Your task to perform on an android device: check google app version Image 0: 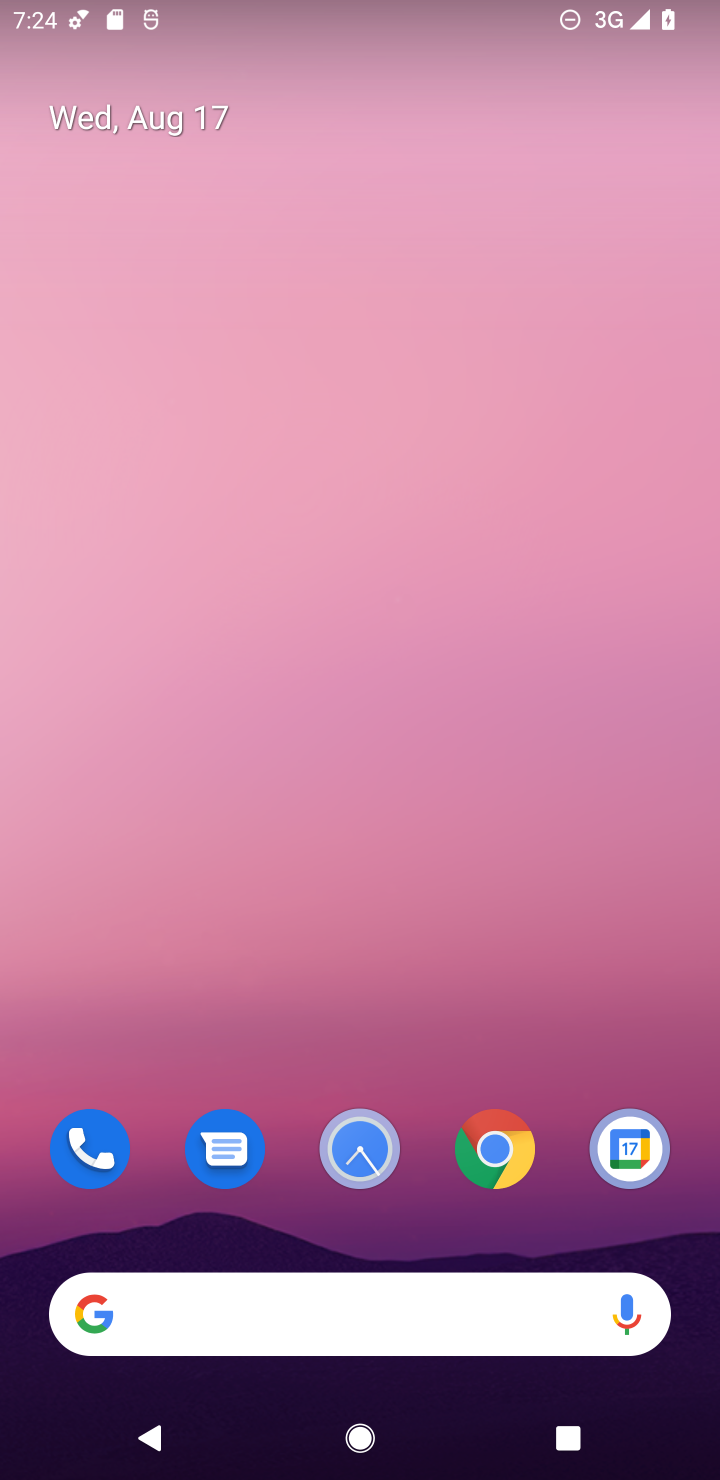
Step 0: drag from (420, 1217) to (337, 68)
Your task to perform on an android device: check google app version Image 1: 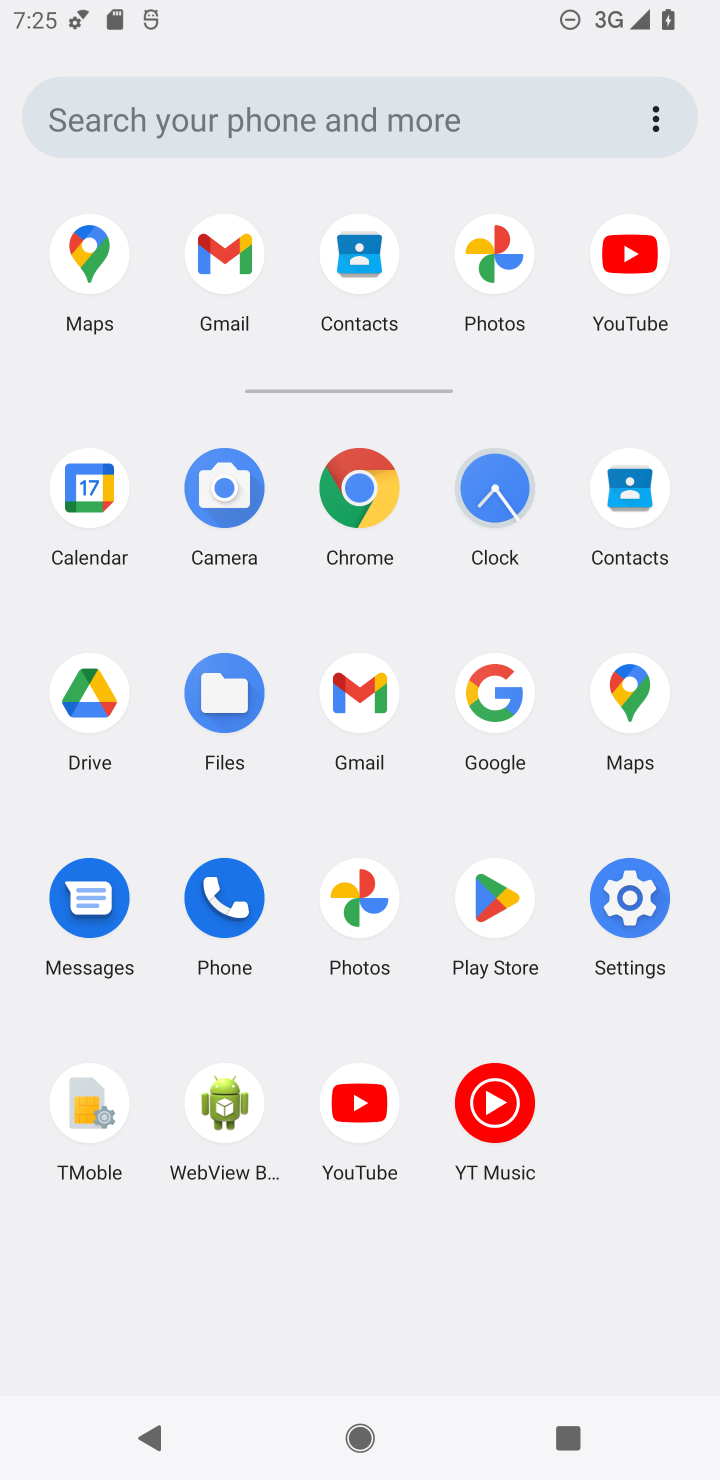
Step 1: click (498, 692)
Your task to perform on an android device: check google app version Image 2: 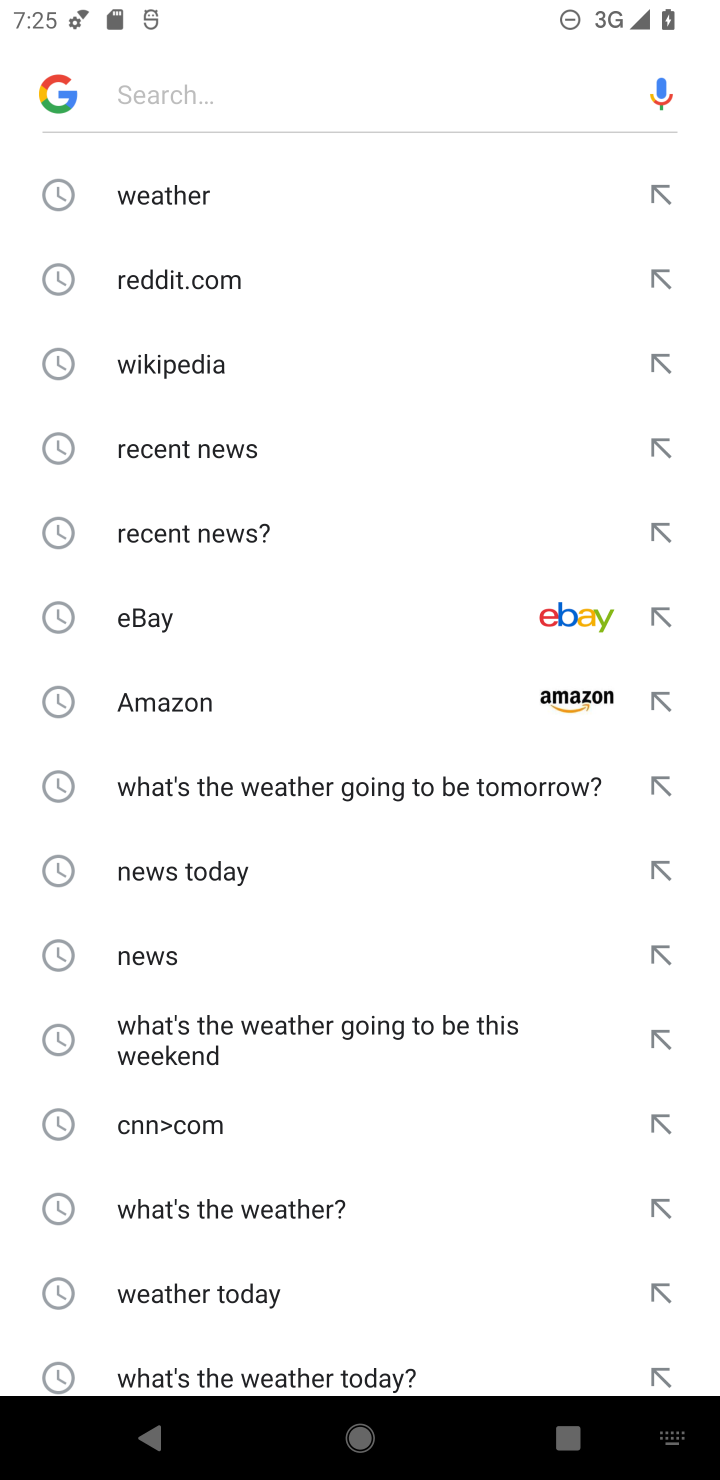
Step 2: click (44, 88)
Your task to perform on an android device: check google app version Image 3: 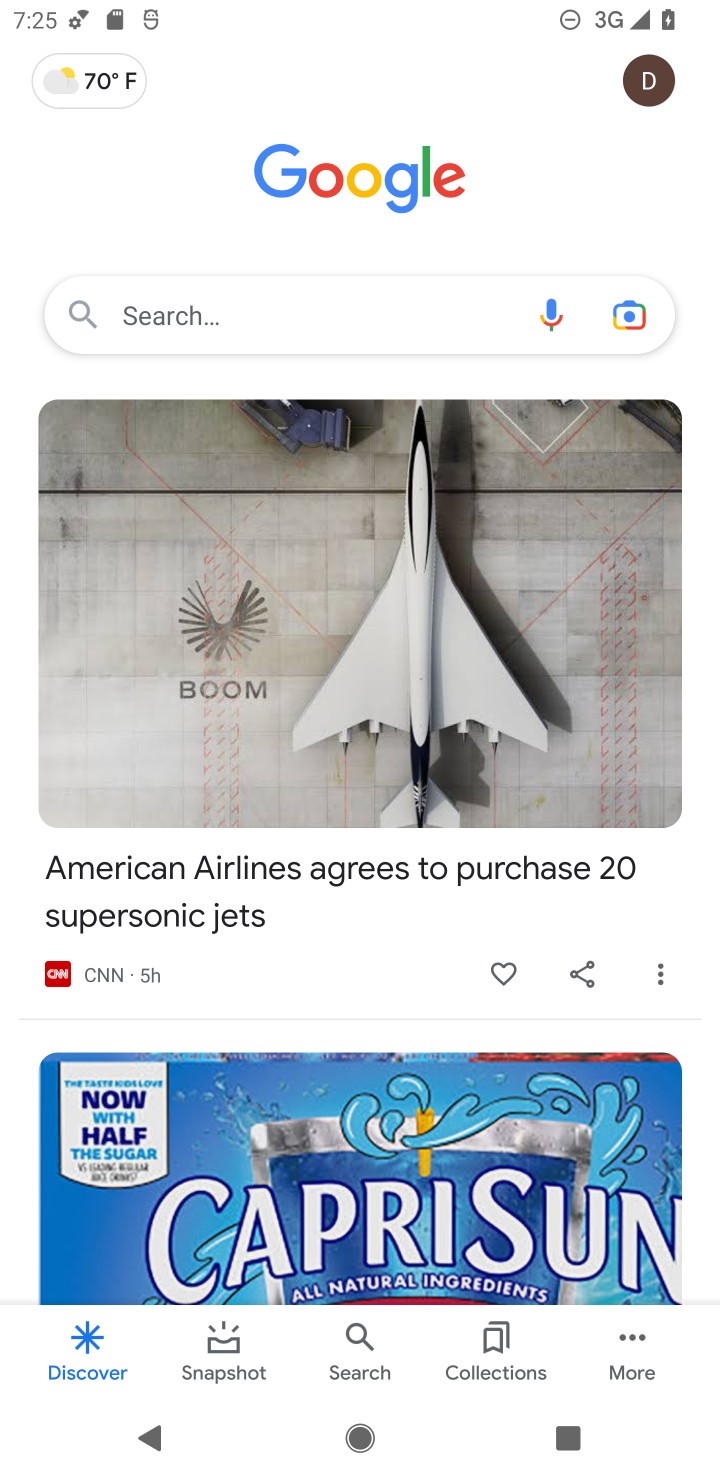
Step 3: click (635, 1339)
Your task to perform on an android device: check google app version Image 4: 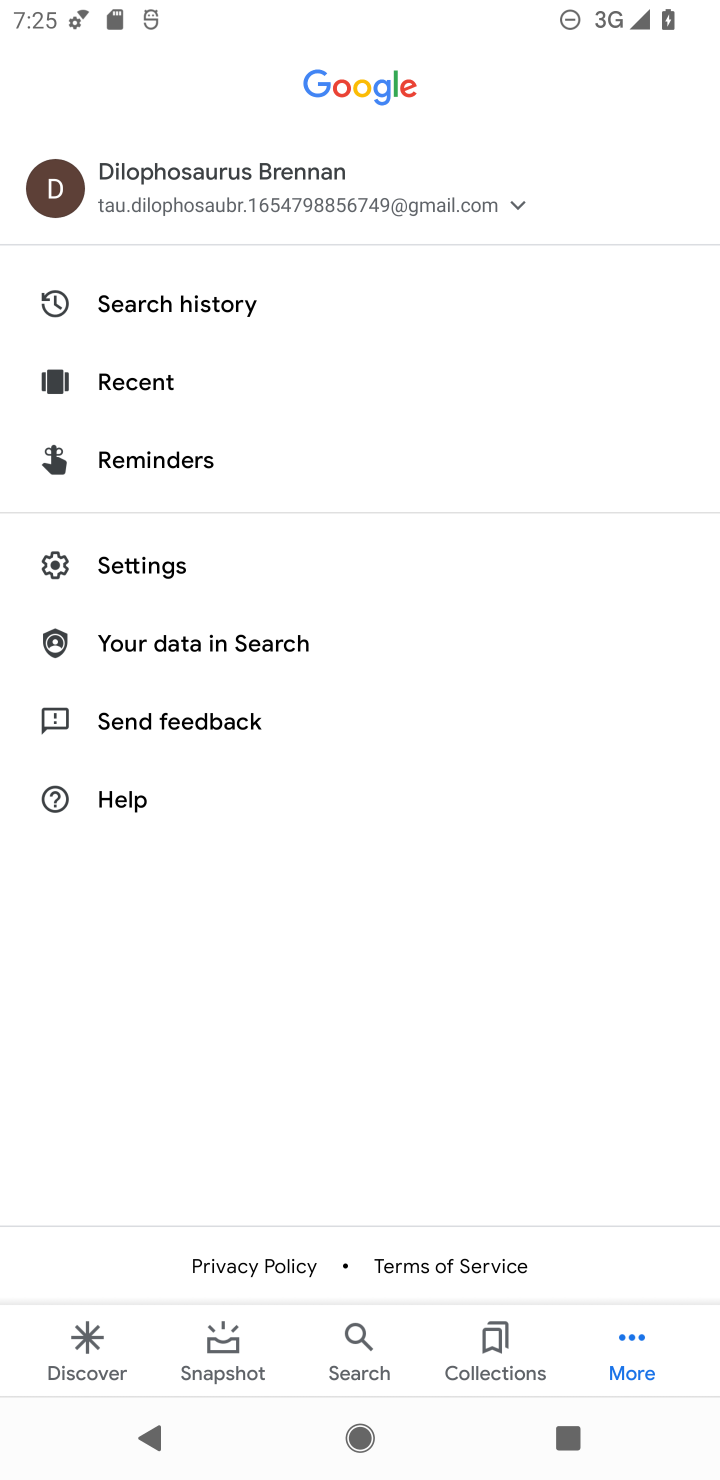
Step 4: click (161, 546)
Your task to perform on an android device: check google app version Image 5: 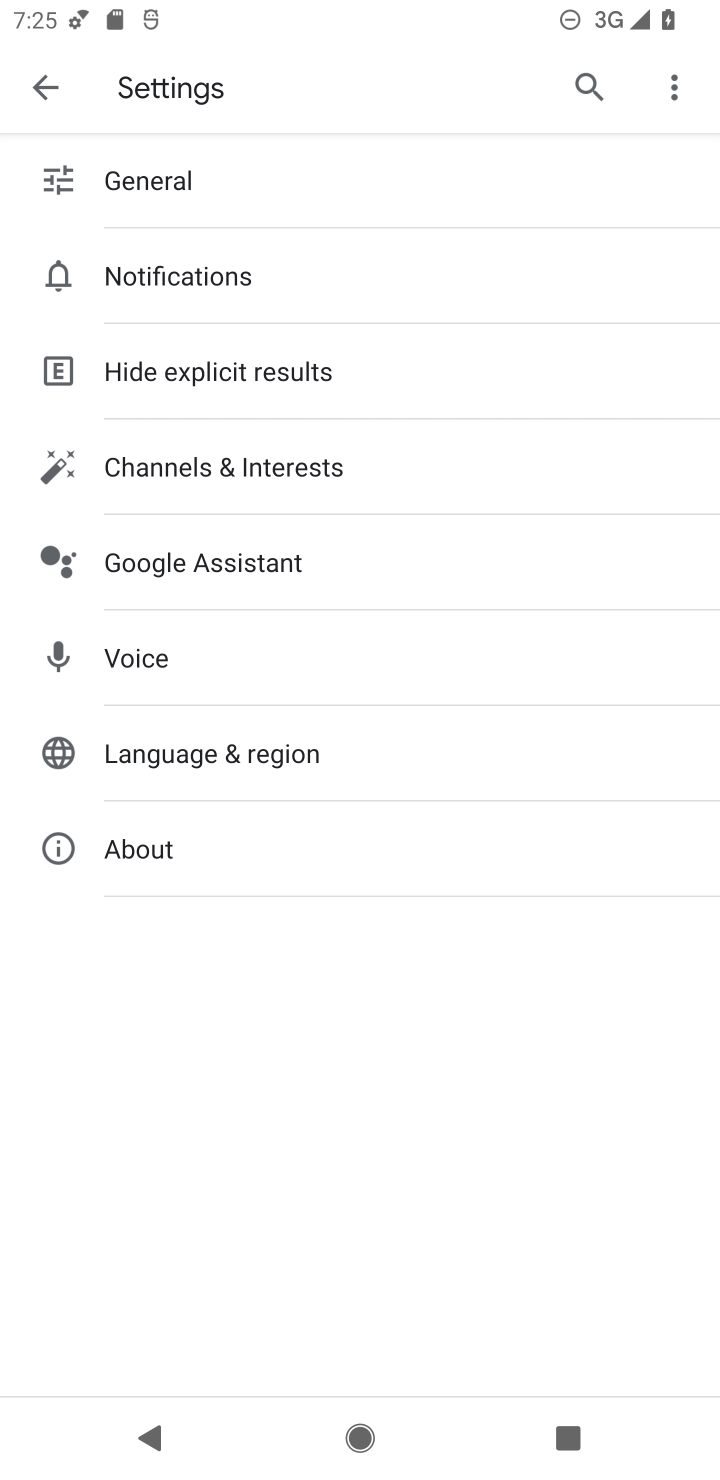
Step 5: click (120, 852)
Your task to perform on an android device: check google app version Image 6: 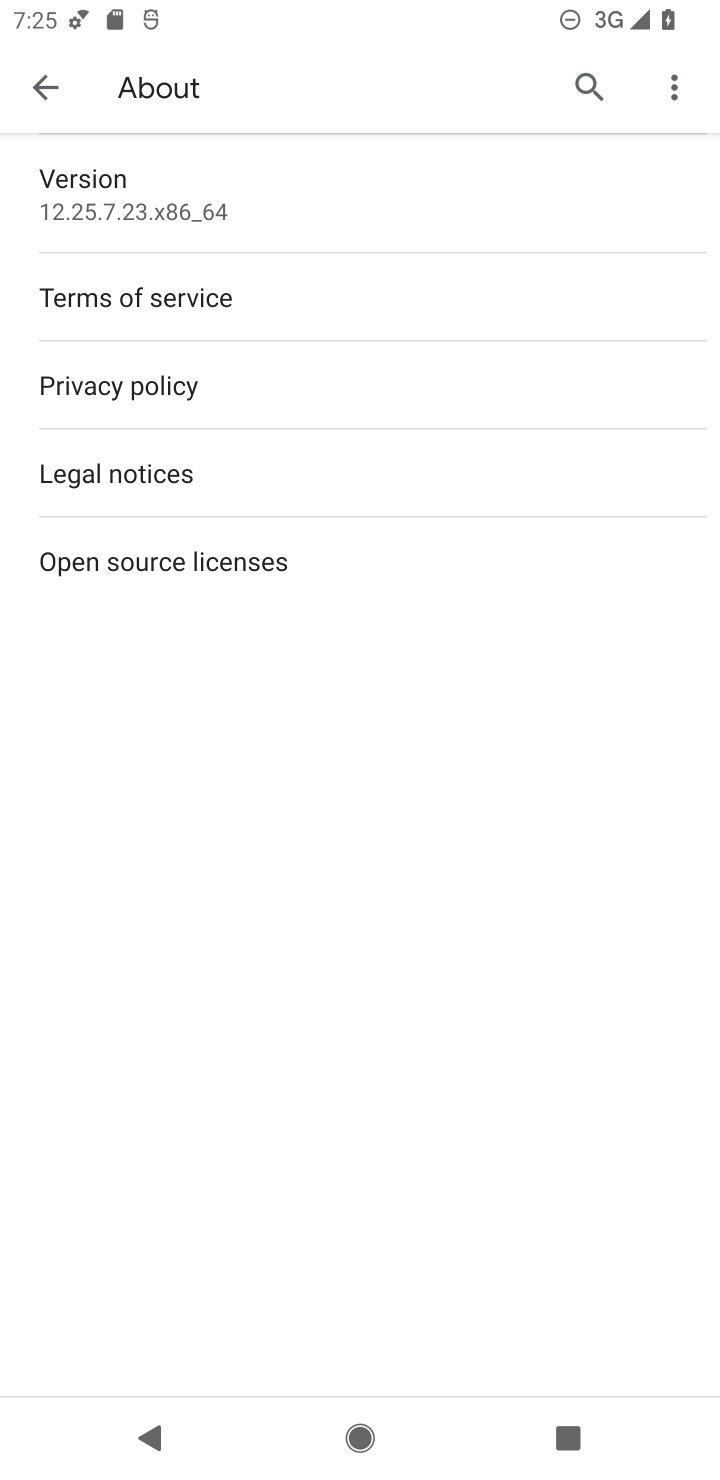
Step 6: task complete